Your task to perform on an android device: turn on the 12-hour format for clock Image 0: 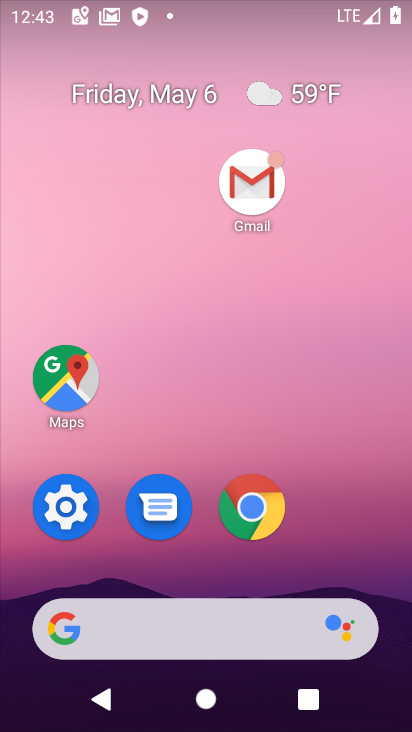
Step 0: drag from (343, 477) to (329, 19)
Your task to perform on an android device: turn on the 12-hour format for clock Image 1: 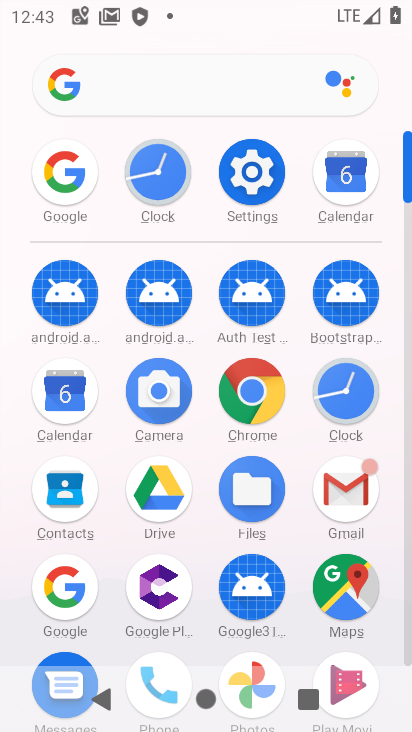
Step 1: click (342, 392)
Your task to perform on an android device: turn on the 12-hour format for clock Image 2: 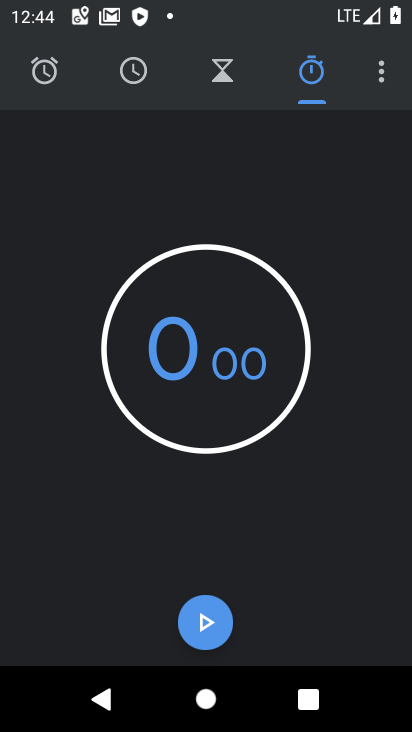
Step 2: click (386, 76)
Your task to perform on an android device: turn on the 12-hour format for clock Image 3: 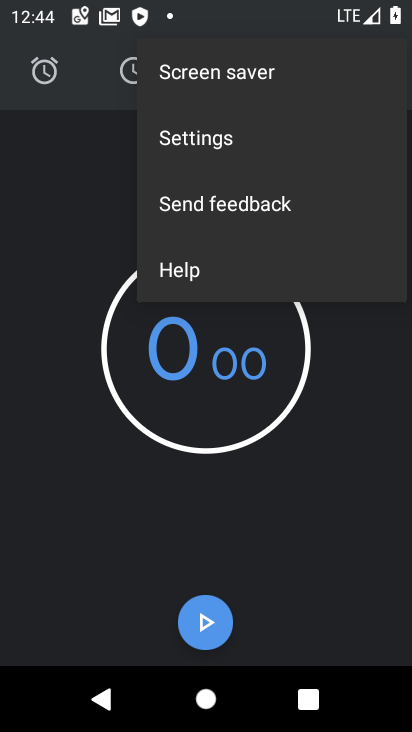
Step 3: click (224, 134)
Your task to perform on an android device: turn on the 12-hour format for clock Image 4: 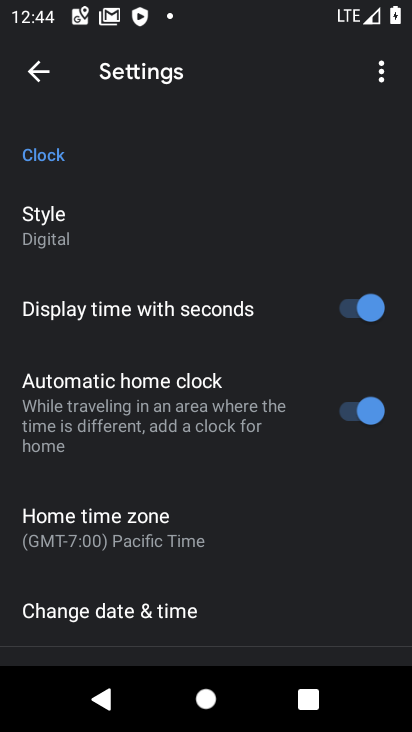
Step 4: click (148, 624)
Your task to perform on an android device: turn on the 12-hour format for clock Image 5: 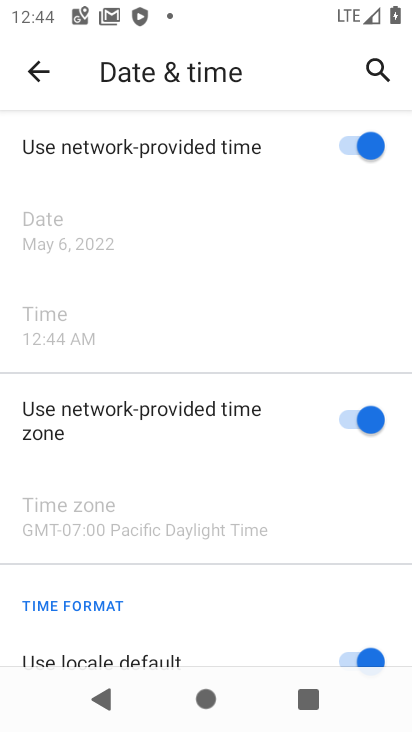
Step 5: task complete